Your task to perform on an android device: turn on translation in the chrome app Image 0: 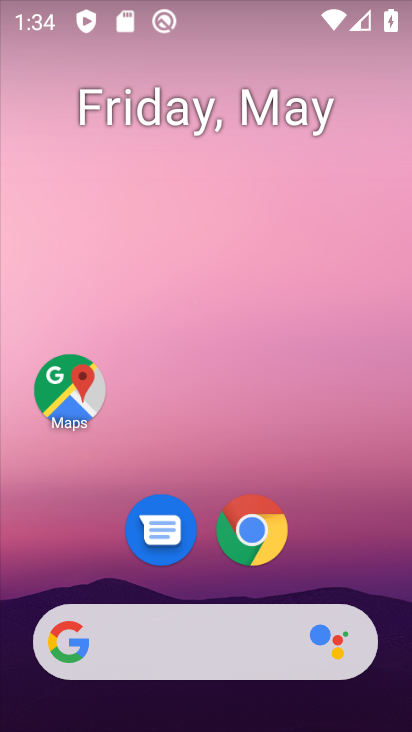
Step 0: click (247, 533)
Your task to perform on an android device: turn on translation in the chrome app Image 1: 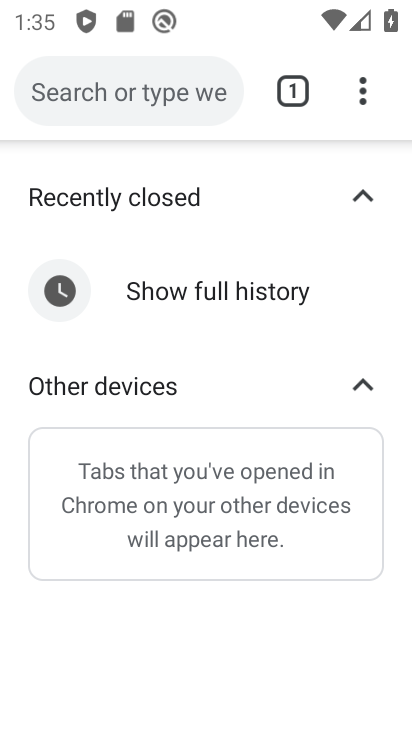
Step 1: click (358, 91)
Your task to perform on an android device: turn on translation in the chrome app Image 2: 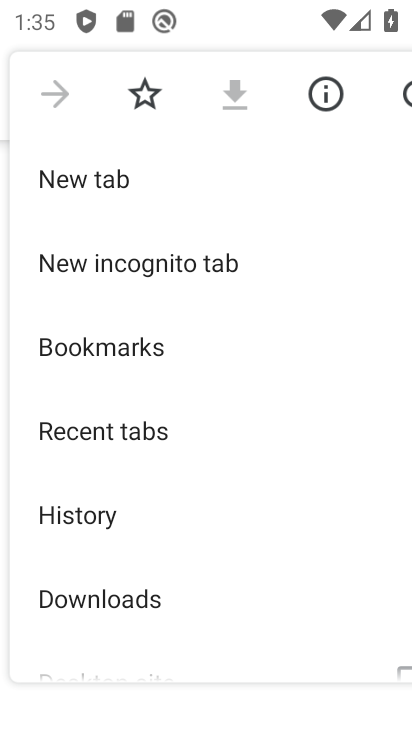
Step 2: drag from (145, 644) to (105, 267)
Your task to perform on an android device: turn on translation in the chrome app Image 3: 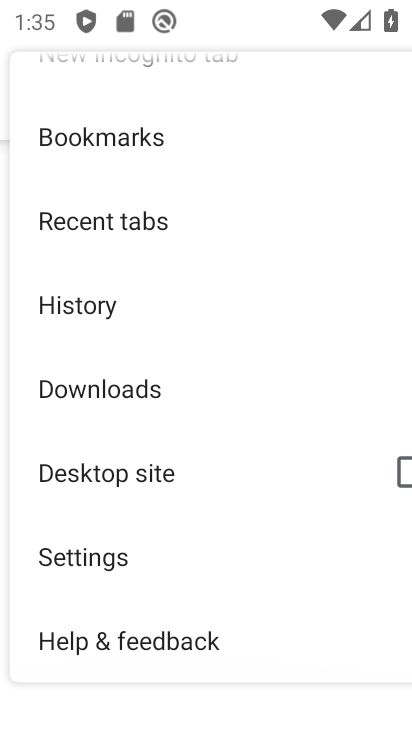
Step 3: click (137, 562)
Your task to perform on an android device: turn on translation in the chrome app Image 4: 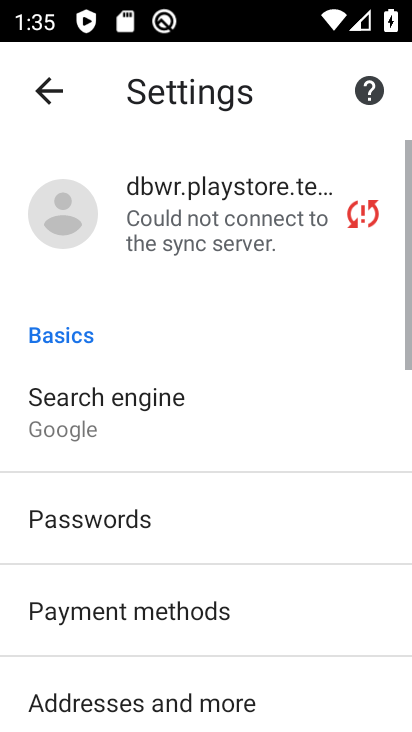
Step 4: drag from (152, 622) to (125, 296)
Your task to perform on an android device: turn on translation in the chrome app Image 5: 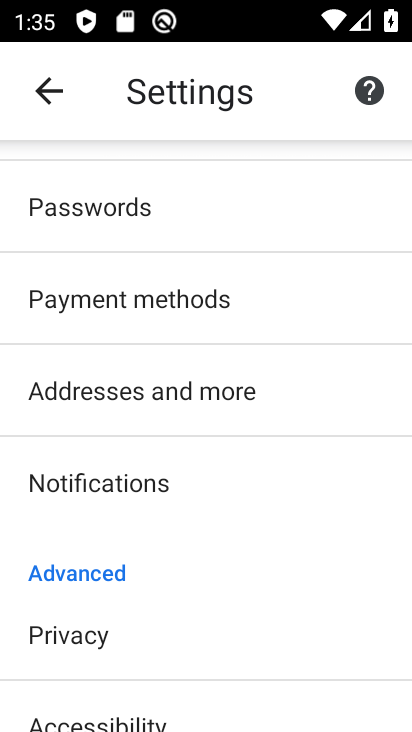
Step 5: drag from (144, 643) to (130, 303)
Your task to perform on an android device: turn on translation in the chrome app Image 6: 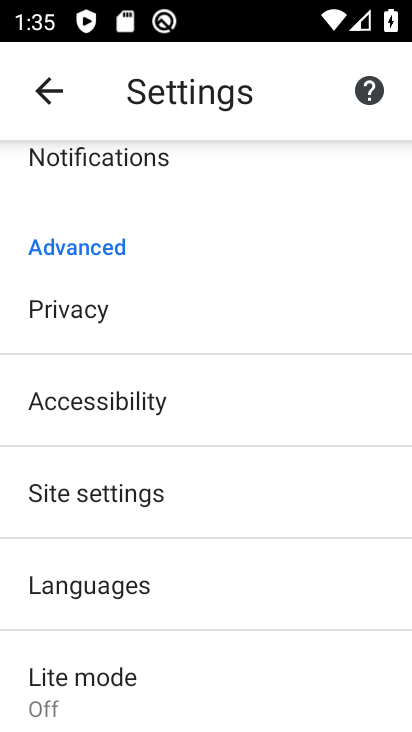
Step 6: click (160, 583)
Your task to perform on an android device: turn on translation in the chrome app Image 7: 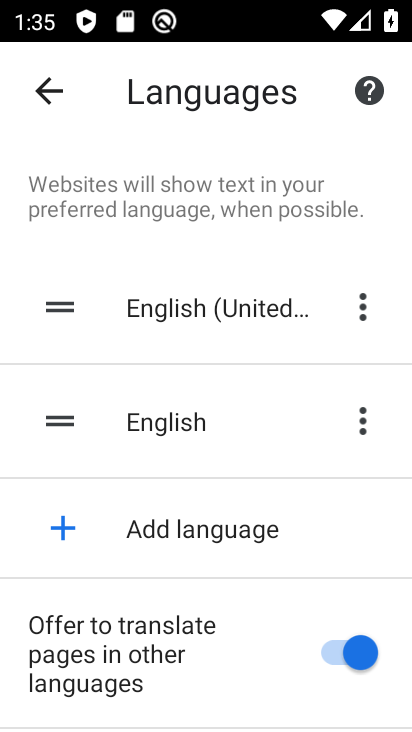
Step 7: task complete